Your task to perform on an android device: turn on the 12-hour format for clock Image 0: 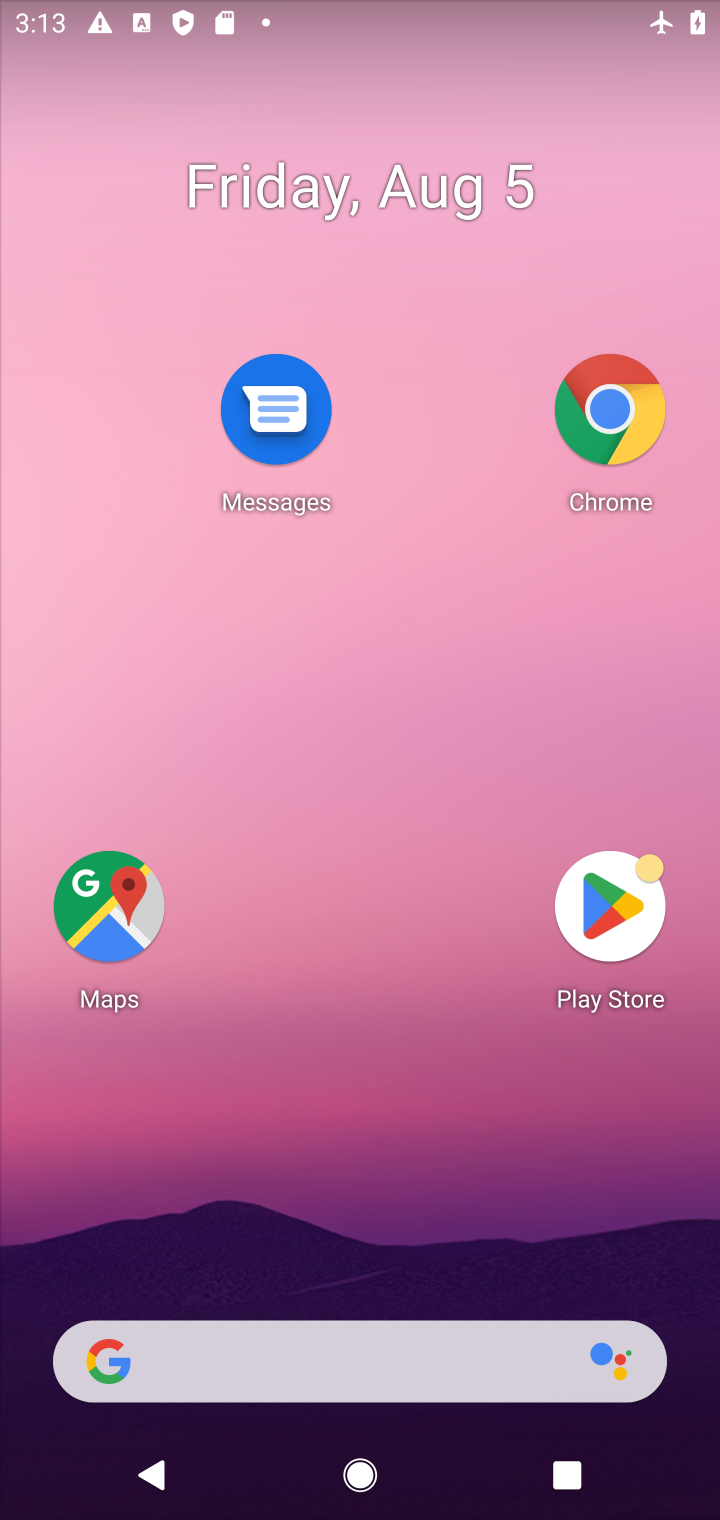
Step 0: drag from (382, 608) to (382, 256)
Your task to perform on an android device: turn on the 12-hour format for clock Image 1: 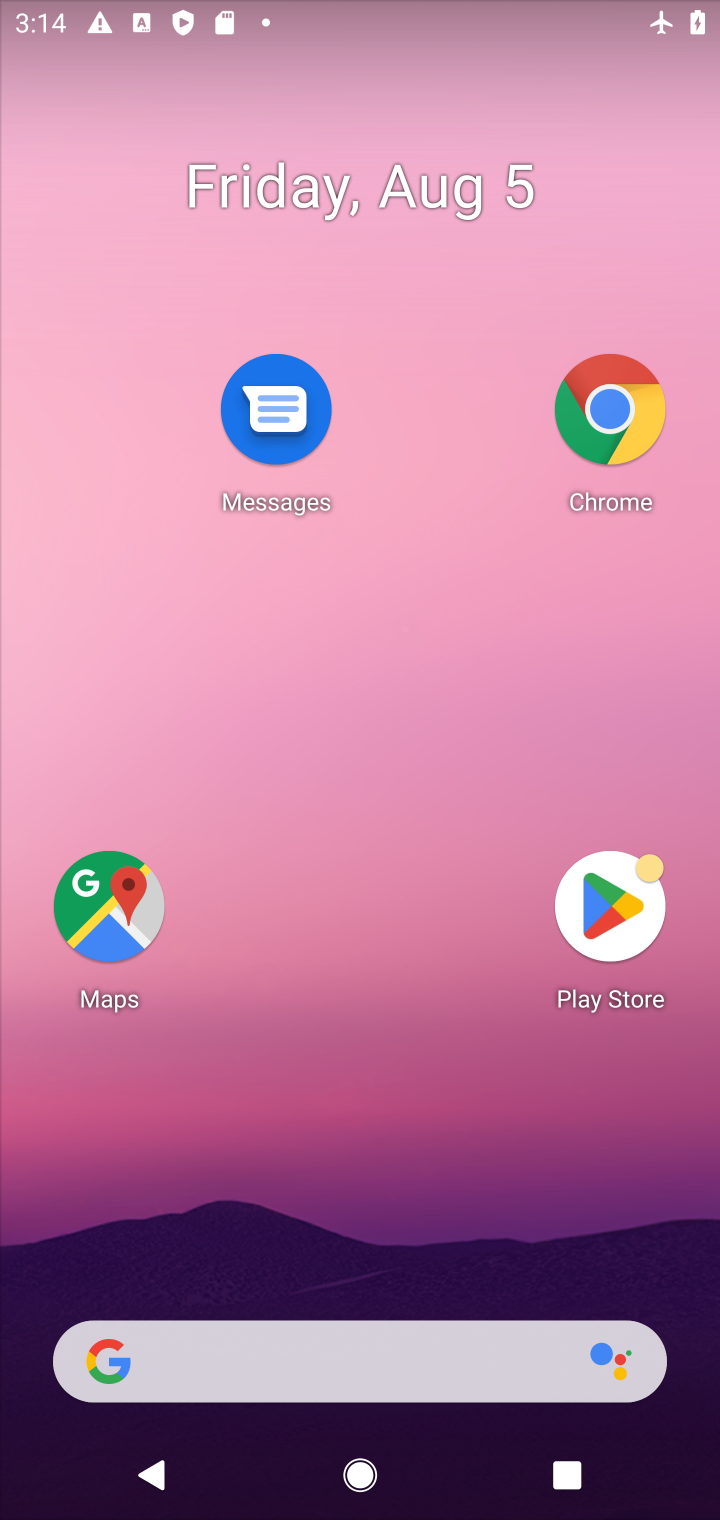
Step 1: drag from (303, 1182) to (305, 430)
Your task to perform on an android device: turn on the 12-hour format for clock Image 2: 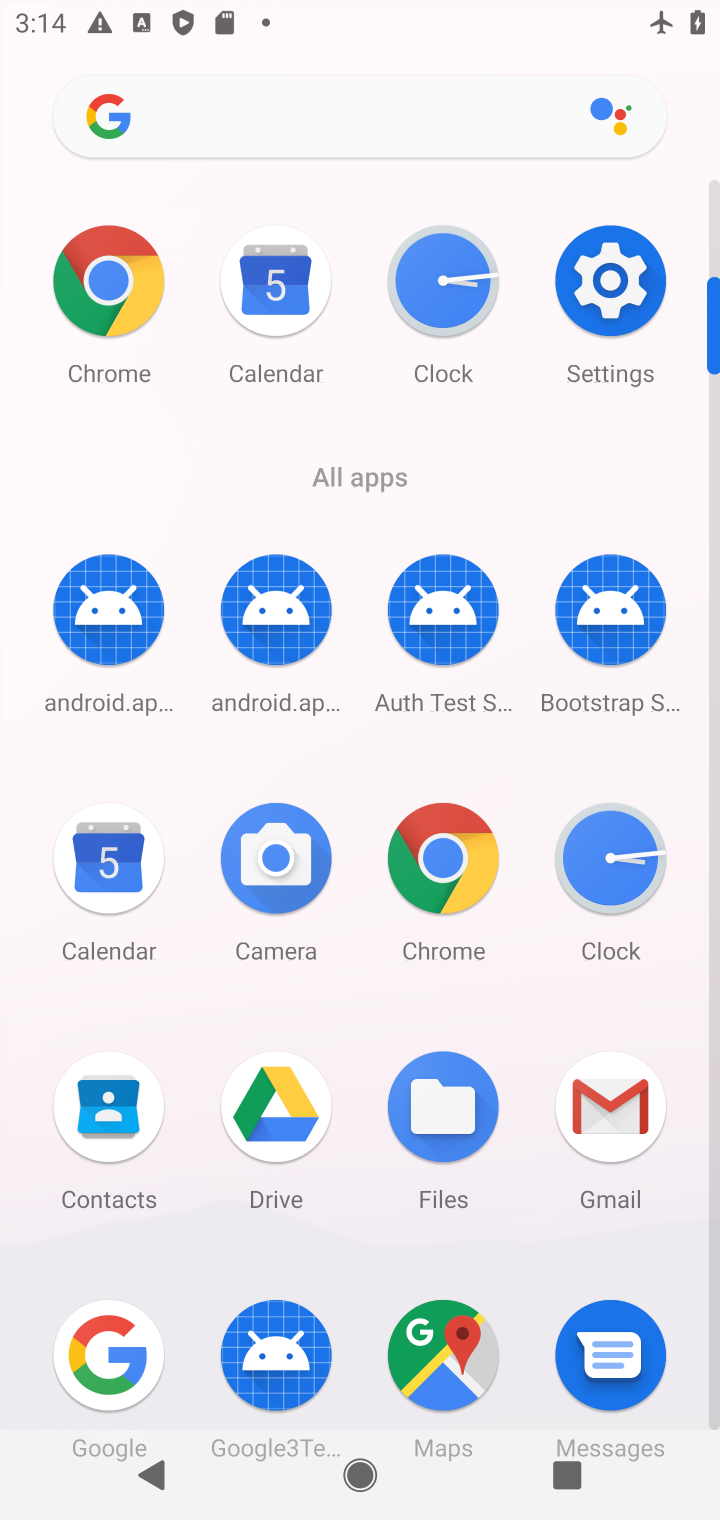
Step 2: click (433, 334)
Your task to perform on an android device: turn on the 12-hour format for clock Image 3: 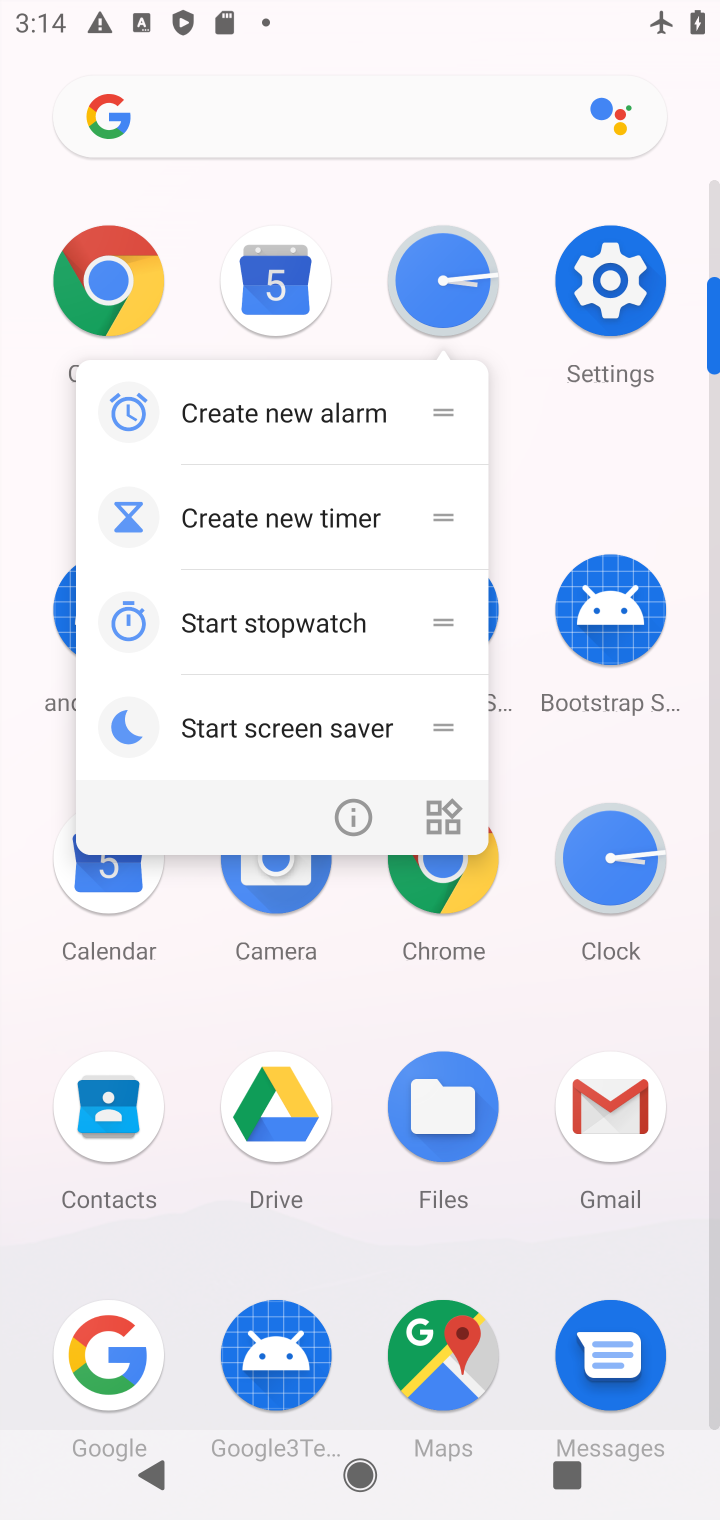
Step 3: click (431, 309)
Your task to perform on an android device: turn on the 12-hour format for clock Image 4: 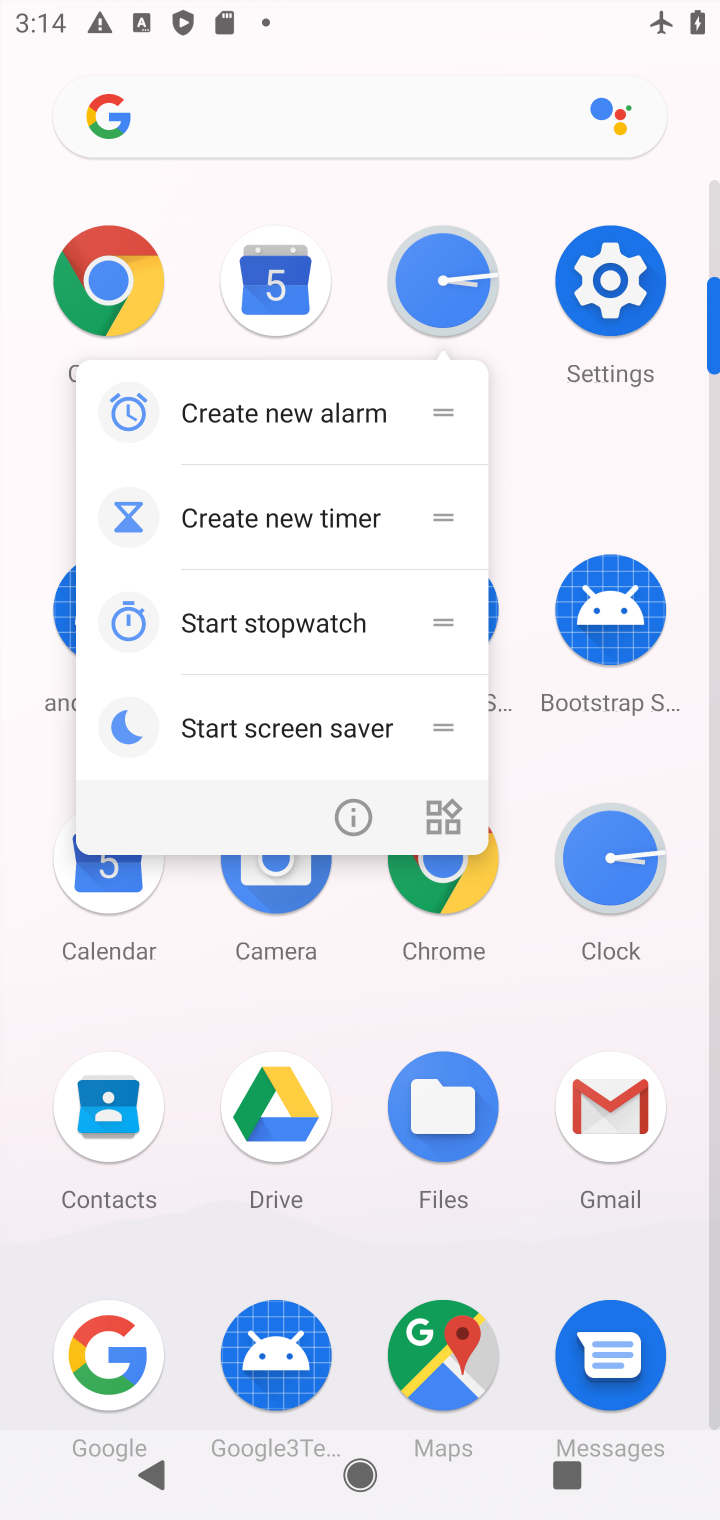
Step 4: click (431, 309)
Your task to perform on an android device: turn on the 12-hour format for clock Image 5: 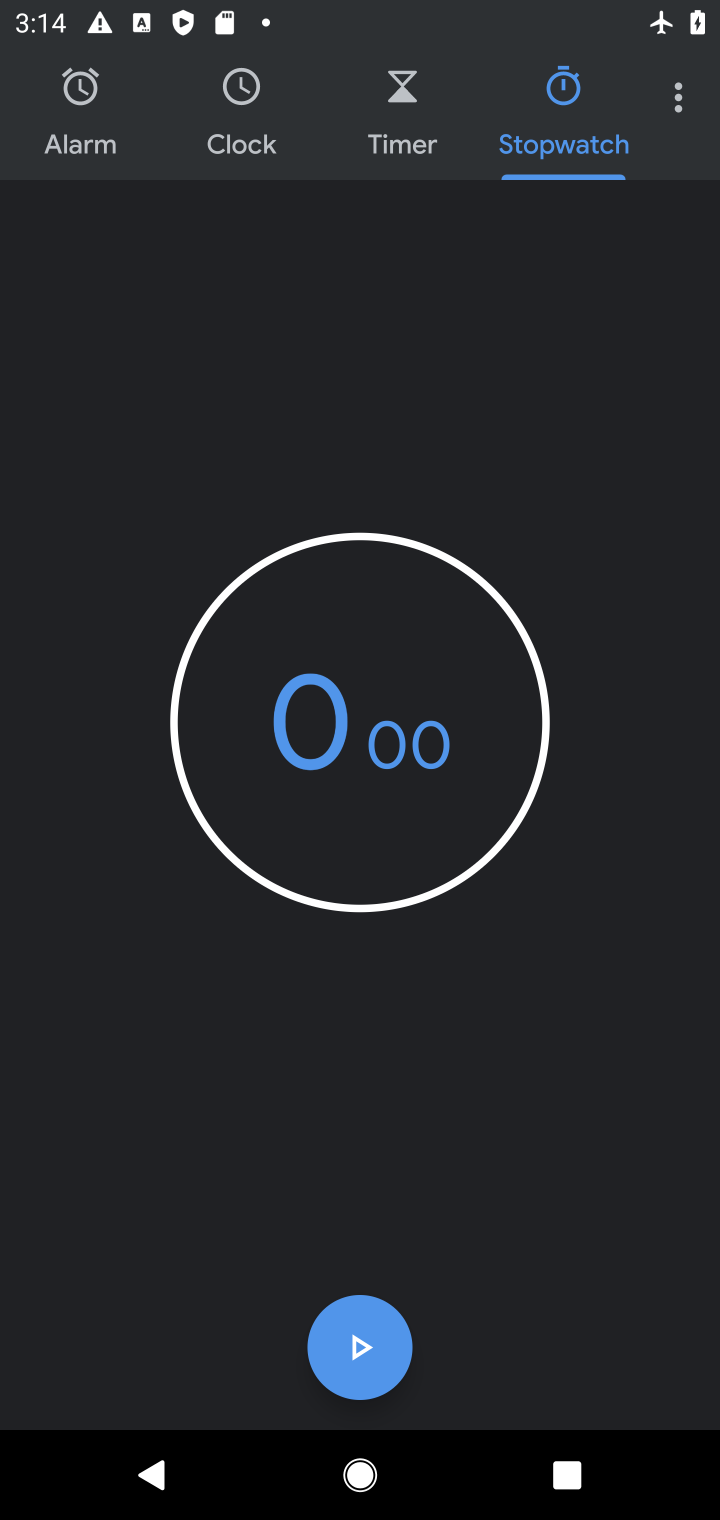
Step 5: click (659, 100)
Your task to perform on an android device: turn on the 12-hour format for clock Image 6: 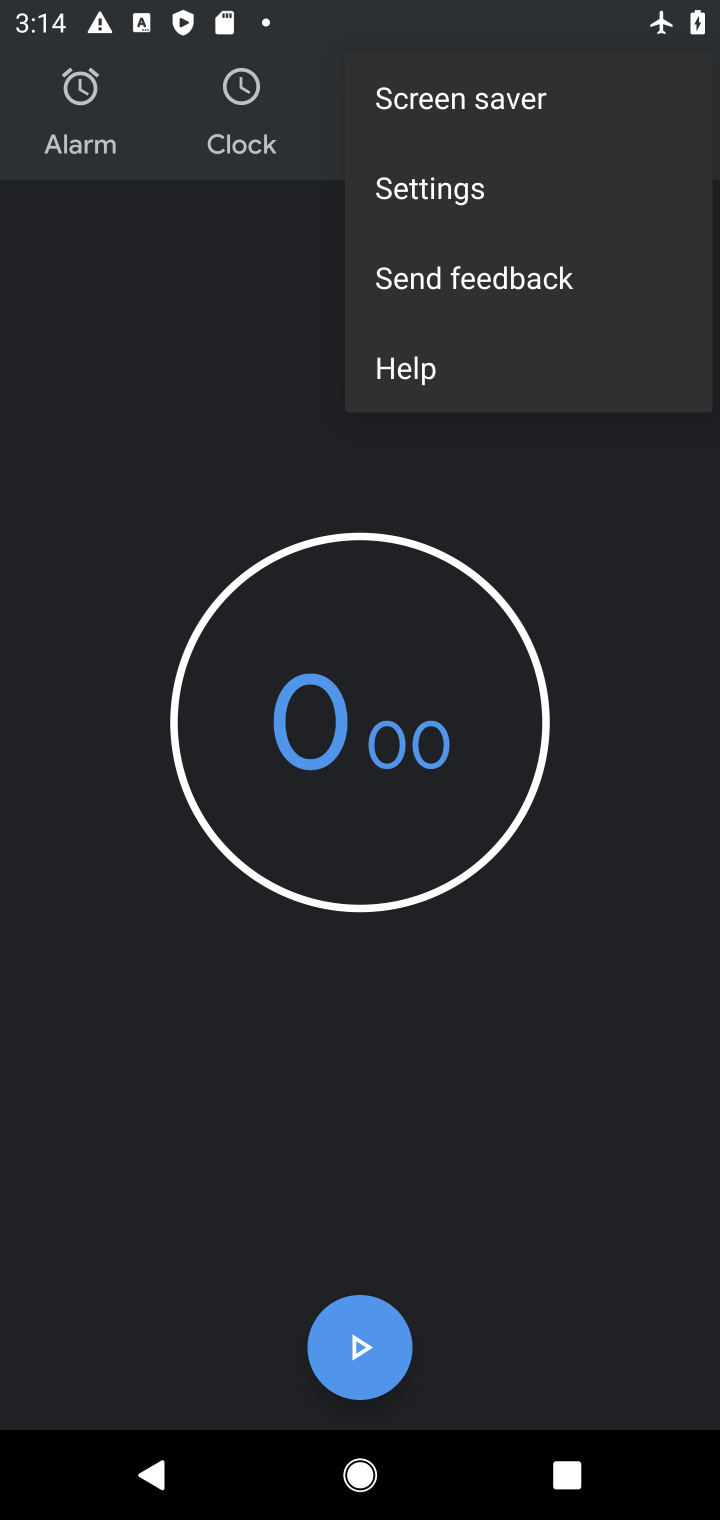
Step 6: click (455, 201)
Your task to perform on an android device: turn on the 12-hour format for clock Image 7: 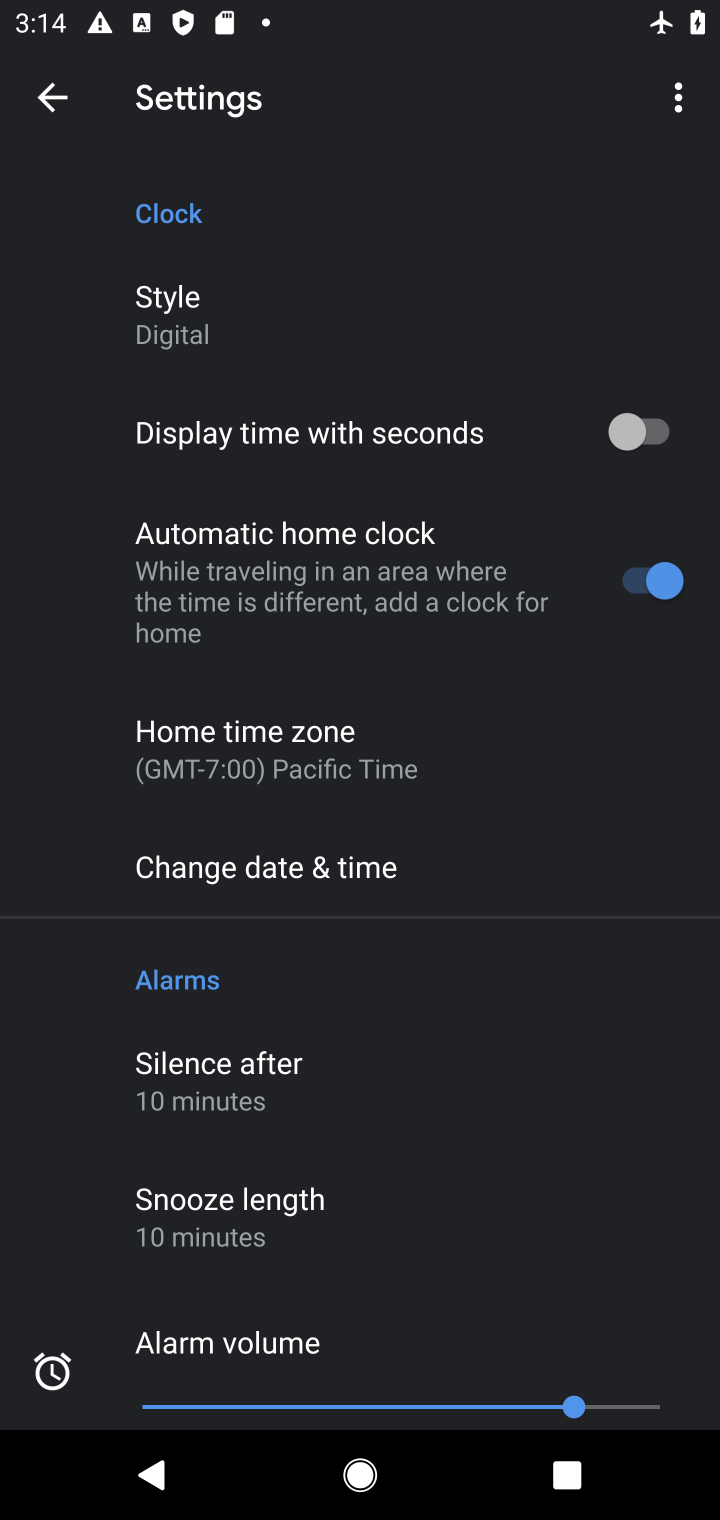
Step 7: click (417, 866)
Your task to perform on an android device: turn on the 12-hour format for clock Image 8: 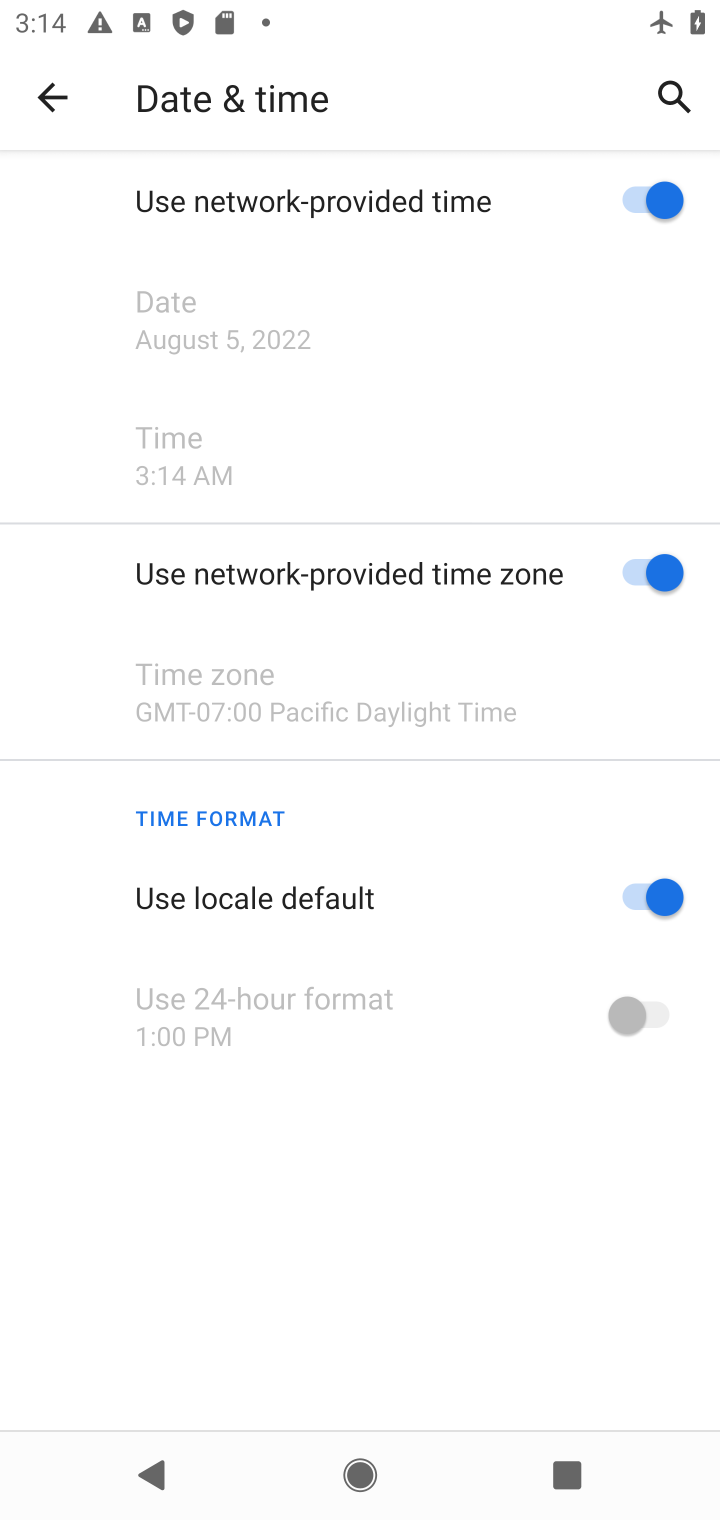
Step 8: task complete